Your task to perform on an android device: turn off notifications in google photos Image 0: 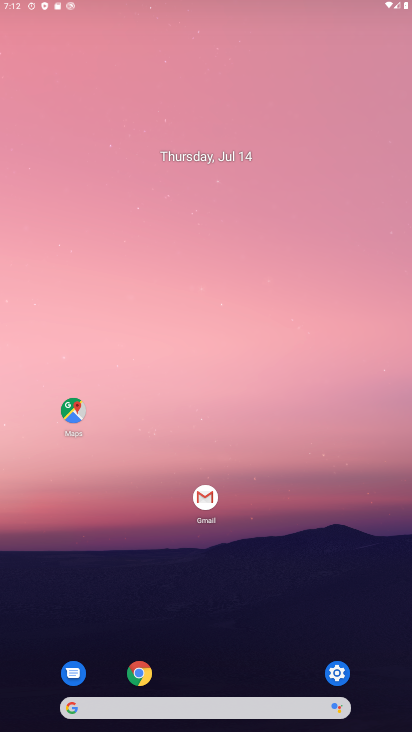
Step 0: press home button
Your task to perform on an android device: turn off notifications in google photos Image 1: 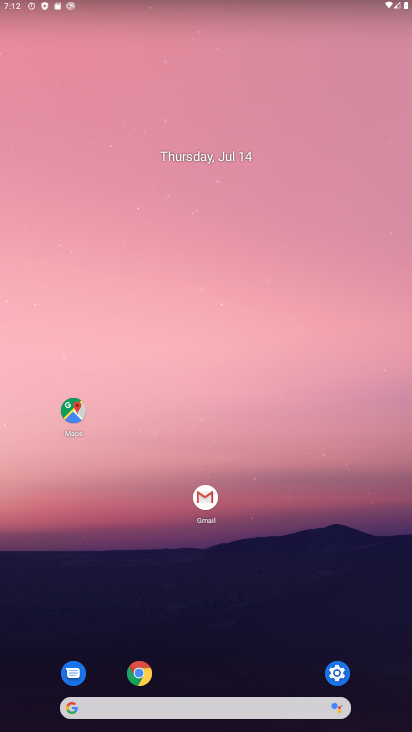
Step 1: drag from (239, 719) to (291, 261)
Your task to perform on an android device: turn off notifications in google photos Image 2: 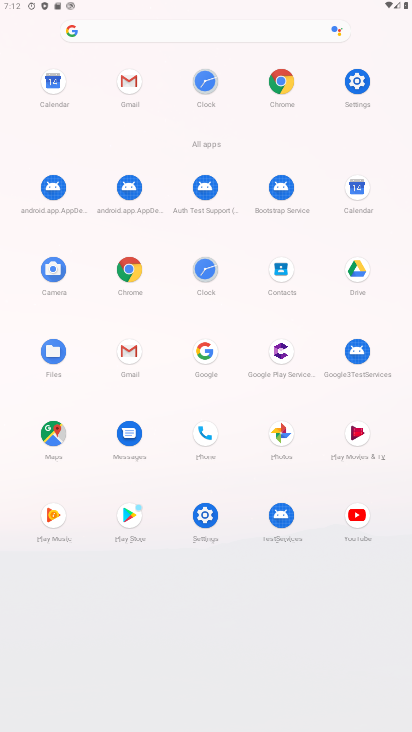
Step 2: click (271, 429)
Your task to perform on an android device: turn off notifications in google photos Image 3: 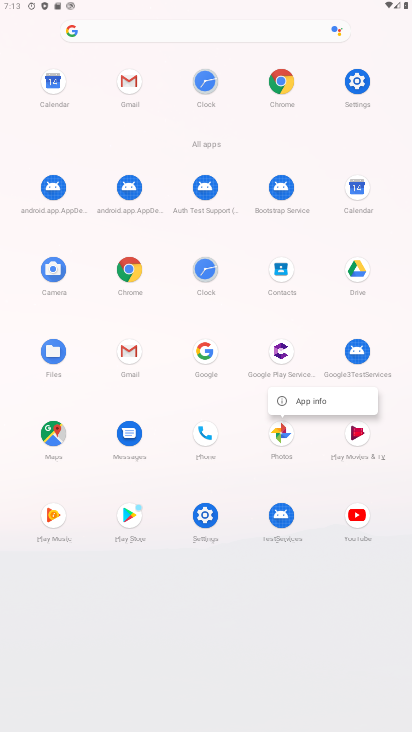
Step 3: click (281, 443)
Your task to perform on an android device: turn off notifications in google photos Image 4: 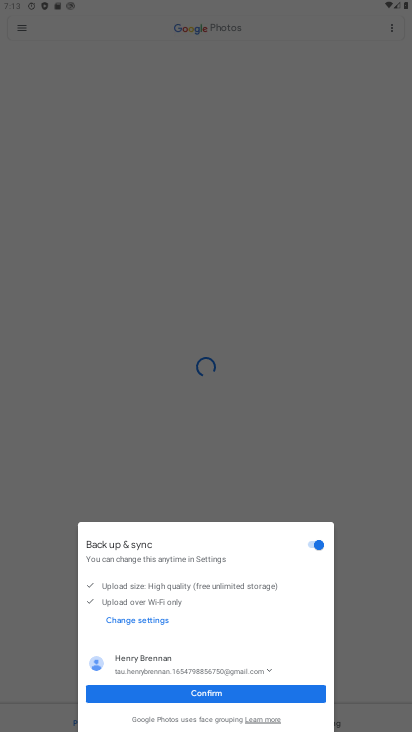
Step 4: click (196, 690)
Your task to perform on an android device: turn off notifications in google photos Image 5: 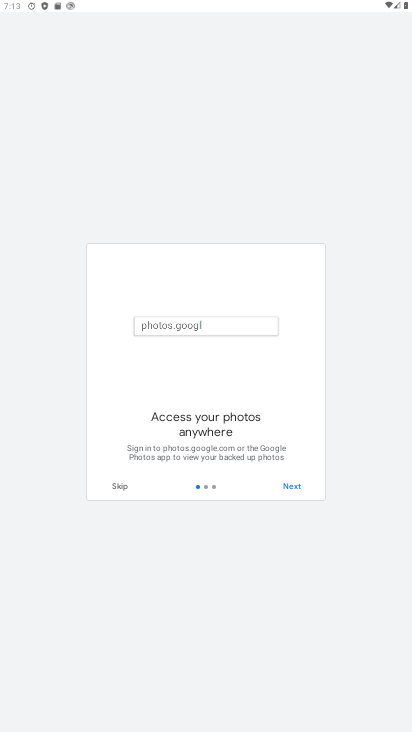
Step 5: click (285, 483)
Your task to perform on an android device: turn off notifications in google photos Image 6: 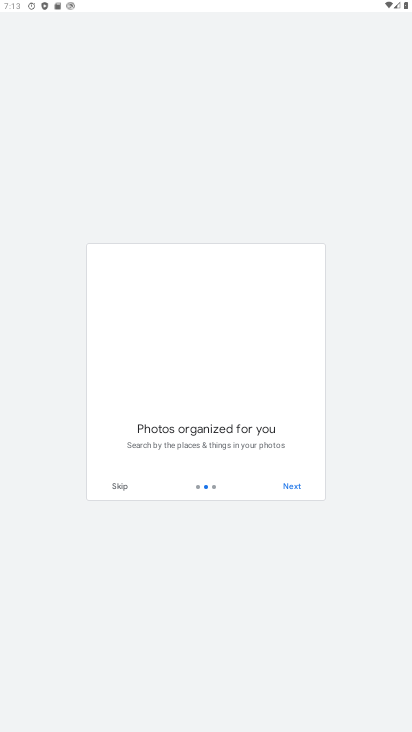
Step 6: click (285, 483)
Your task to perform on an android device: turn off notifications in google photos Image 7: 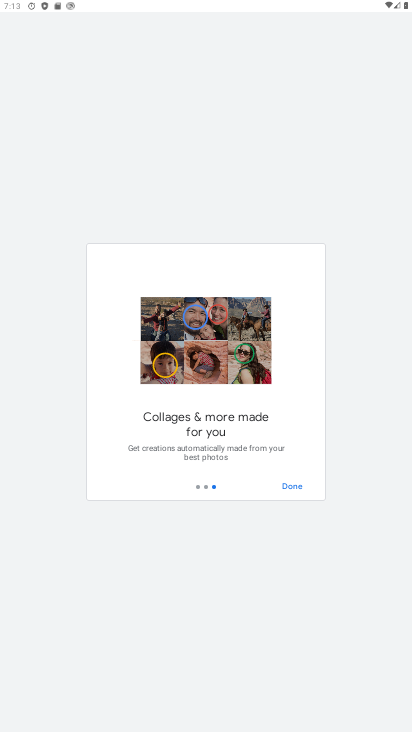
Step 7: click (285, 483)
Your task to perform on an android device: turn off notifications in google photos Image 8: 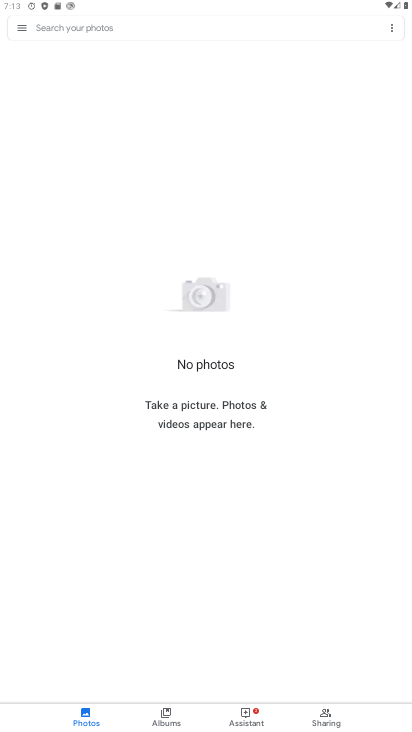
Step 8: click (26, 29)
Your task to perform on an android device: turn off notifications in google photos Image 9: 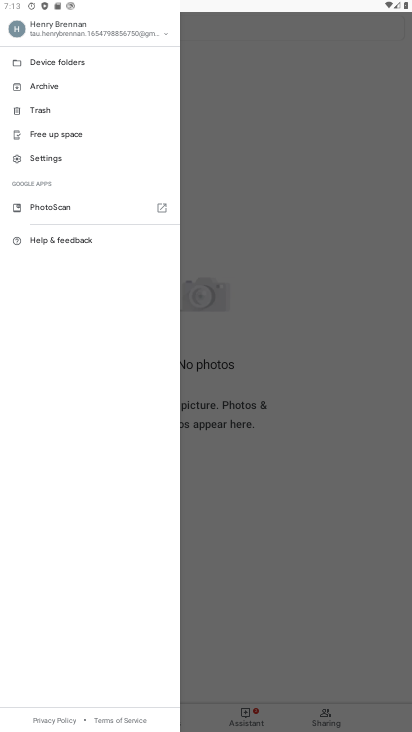
Step 9: click (49, 161)
Your task to perform on an android device: turn off notifications in google photos Image 10: 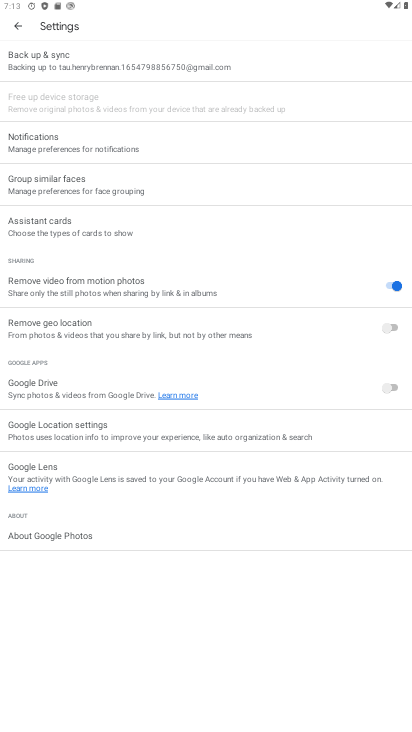
Step 10: click (89, 156)
Your task to perform on an android device: turn off notifications in google photos Image 11: 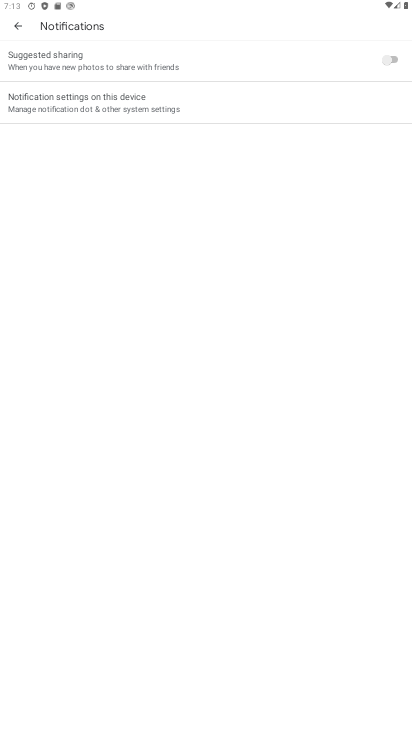
Step 11: click (143, 94)
Your task to perform on an android device: turn off notifications in google photos Image 12: 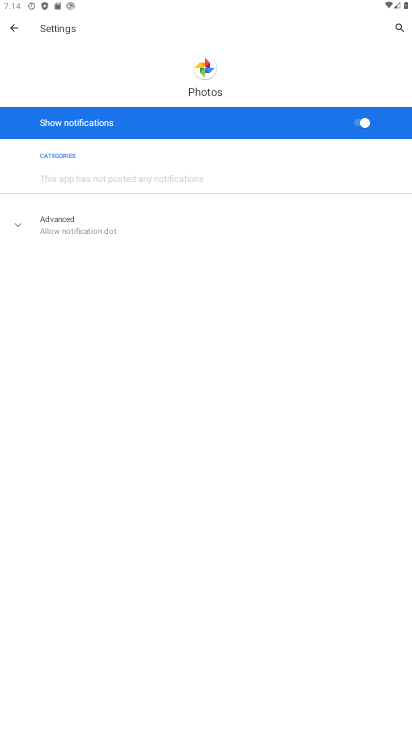
Step 12: click (352, 124)
Your task to perform on an android device: turn off notifications in google photos Image 13: 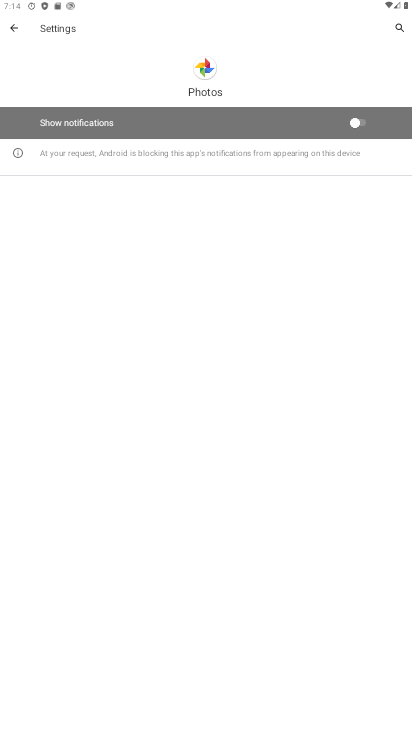
Step 13: task complete